Your task to perform on an android device: Open Chrome and go to settings Image 0: 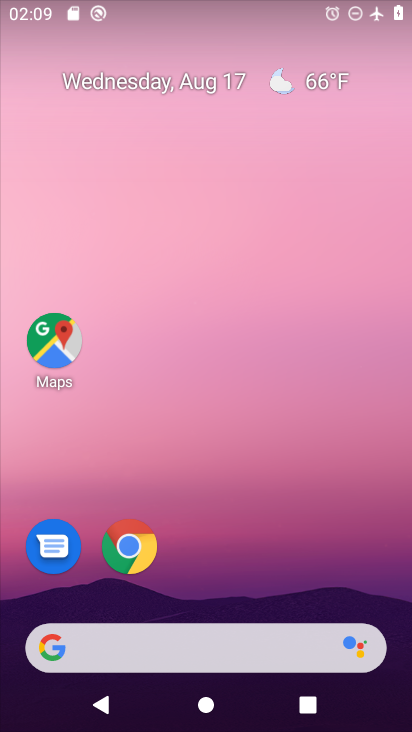
Step 0: click (133, 555)
Your task to perform on an android device: Open Chrome and go to settings Image 1: 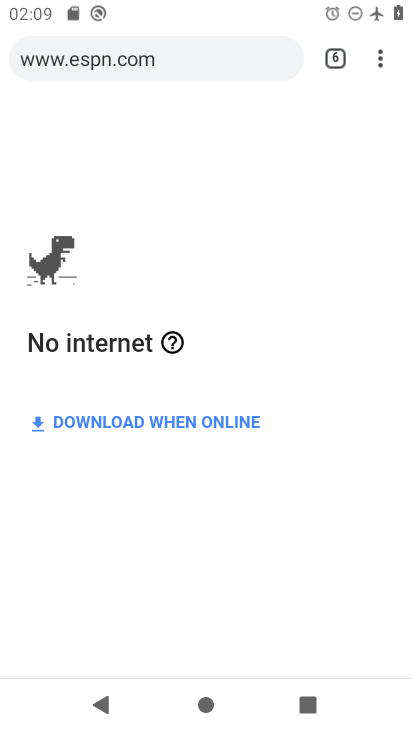
Step 1: click (378, 57)
Your task to perform on an android device: Open Chrome and go to settings Image 2: 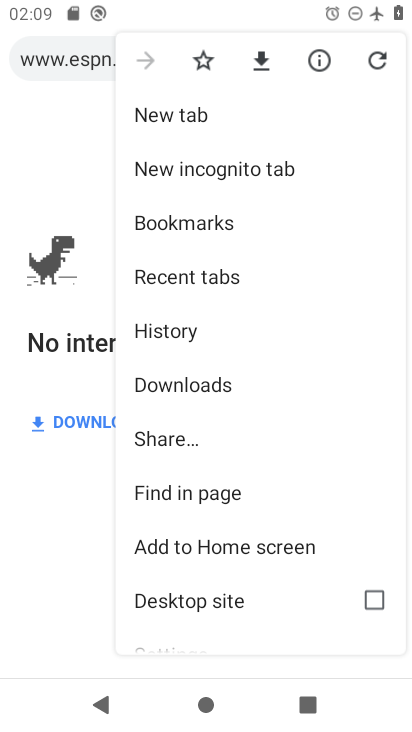
Step 2: drag from (258, 575) to (248, 269)
Your task to perform on an android device: Open Chrome and go to settings Image 3: 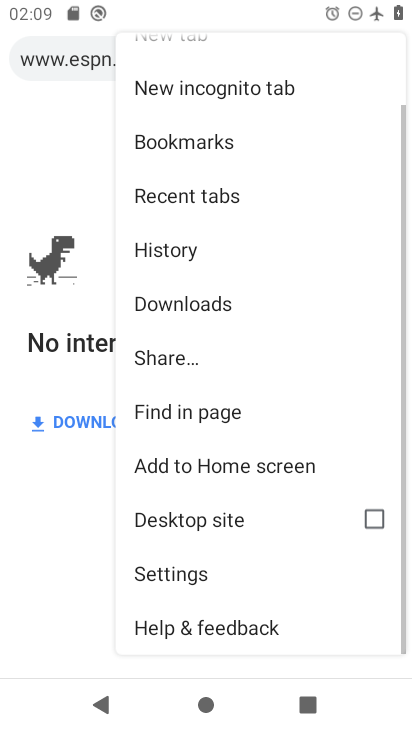
Step 3: click (183, 571)
Your task to perform on an android device: Open Chrome and go to settings Image 4: 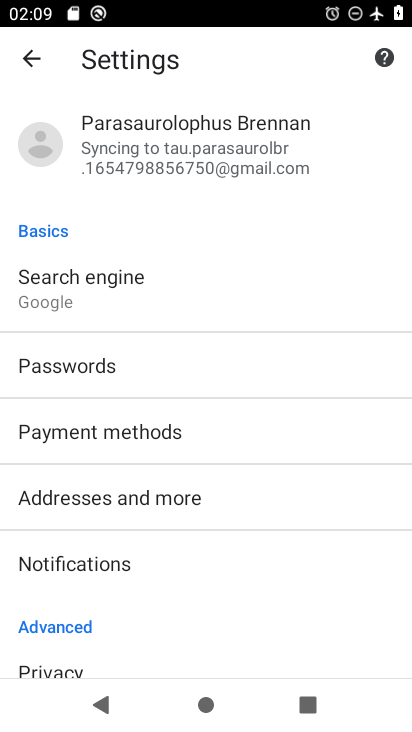
Step 4: task complete